Your task to perform on an android device: toggle notifications settings in the gmail app Image 0: 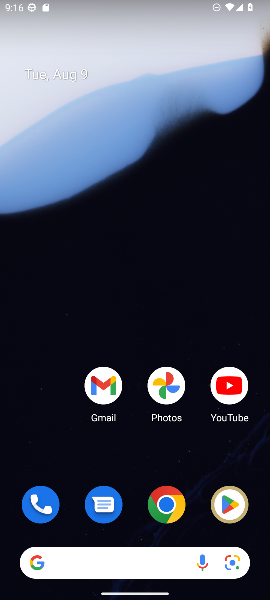
Step 0: click (104, 380)
Your task to perform on an android device: toggle notifications settings in the gmail app Image 1: 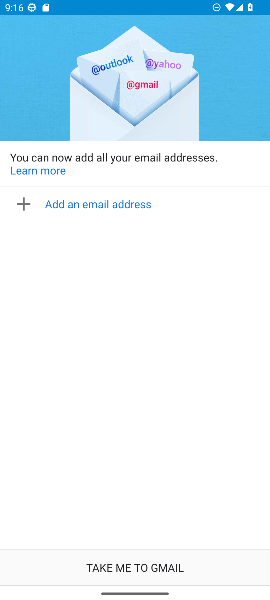
Step 1: click (134, 563)
Your task to perform on an android device: toggle notifications settings in the gmail app Image 2: 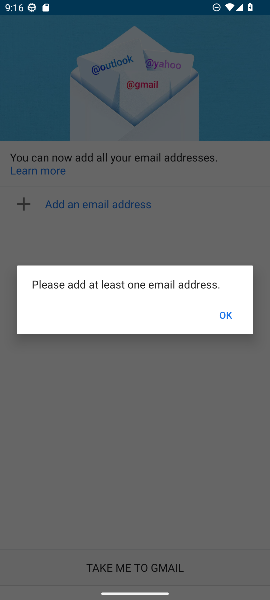
Step 2: click (221, 315)
Your task to perform on an android device: toggle notifications settings in the gmail app Image 3: 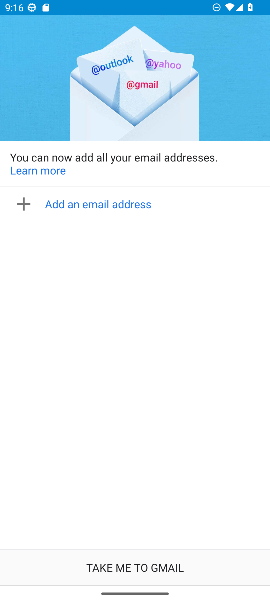
Step 3: task complete